Your task to perform on an android device: find snoozed emails in the gmail app Image 0: 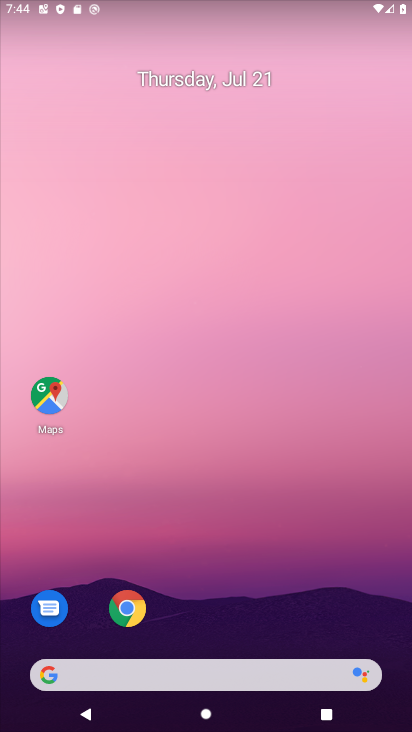
Step 0: drag from (184, 672) to (155, 228)
Your task to perform on an android device: find snoozed emails in the gmail app Image 1: 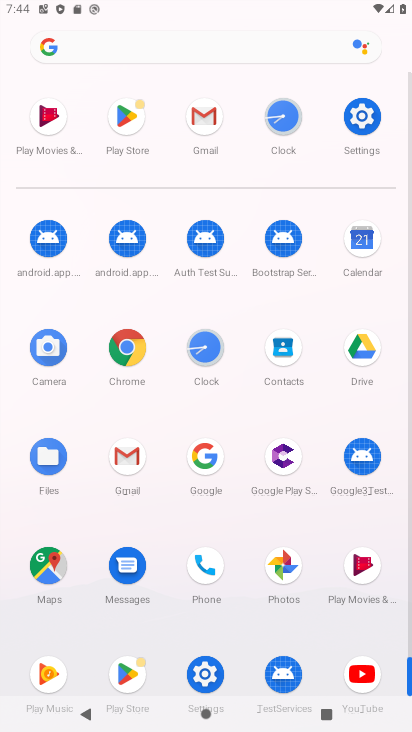
Step 1: click (203, 115)
Your task to perform on an android device: find snoozed emails in the gmail app Image 2: 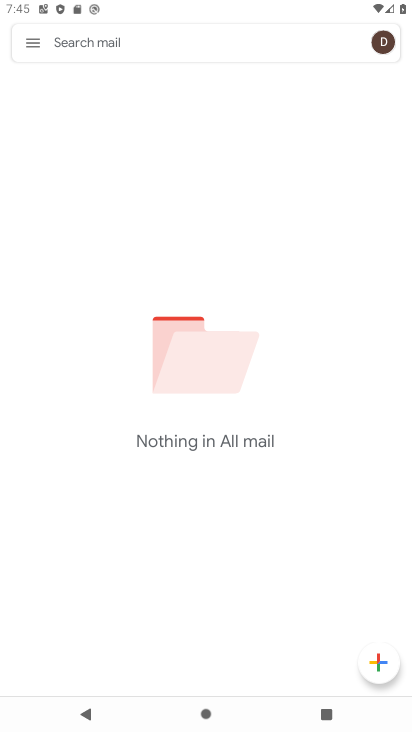
Step 2: click (32, 41)
Your task to perform on an android device: find snoozed emails in the gmail app Image 3: 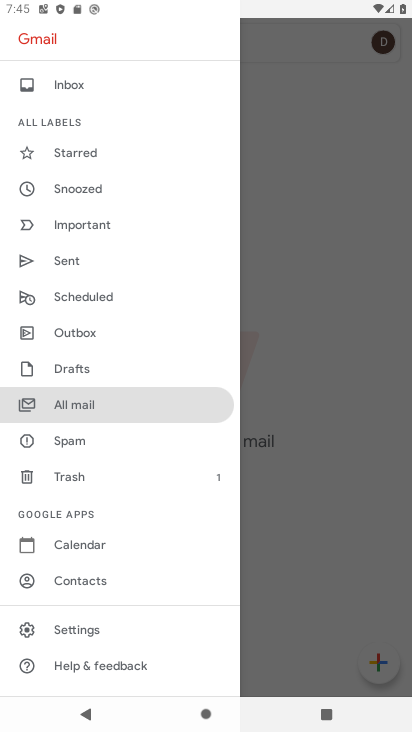
Step 3: click (69, 176)
Your task to perform on an android device: find snoozed emails in the gmail app Image 4: 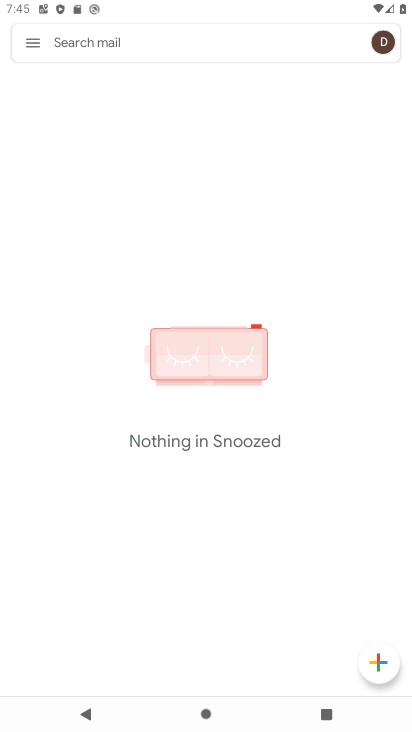
Step 4: click (33, 47)
Your task to perform on an android device: find snoozed emails in the gmail app Image 5: 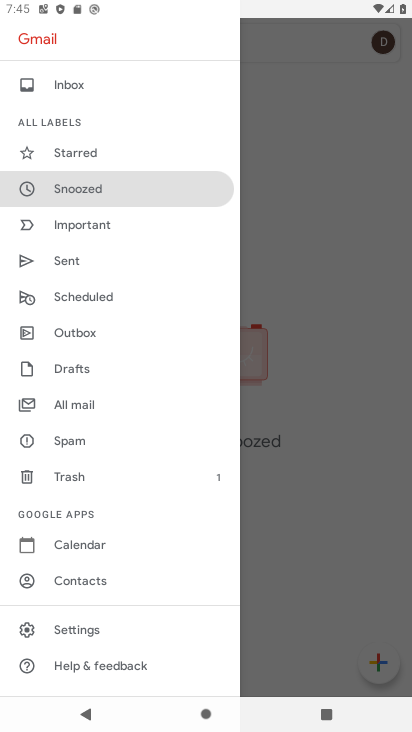
Step 5: click (73, 225)
Your task to perform on an android device: find snoozed emails in the gmail app Image 6: 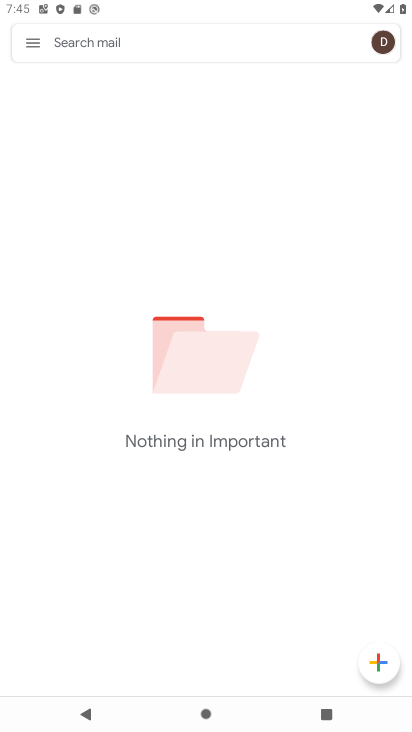
Step 6: click (33, 44)
Your task to perform on an android device: find snoozed emails in the gmail app Image 7: 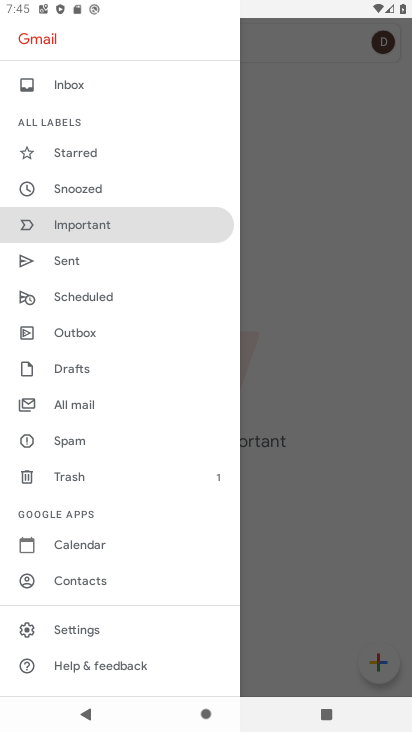
Step 7: click (71, 254)
Your task to perform on an android device: find snoozed emails in the gmail app Image 8: 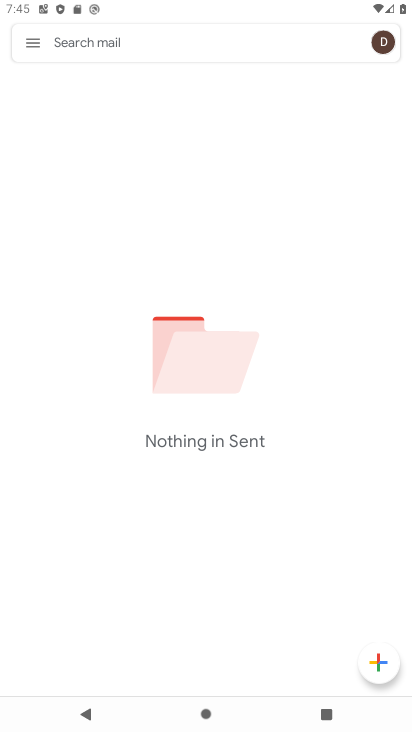
Step 8: click (32, 42)
Your task to perform on an android device: find snoozed emails in the gmail app Image 9: 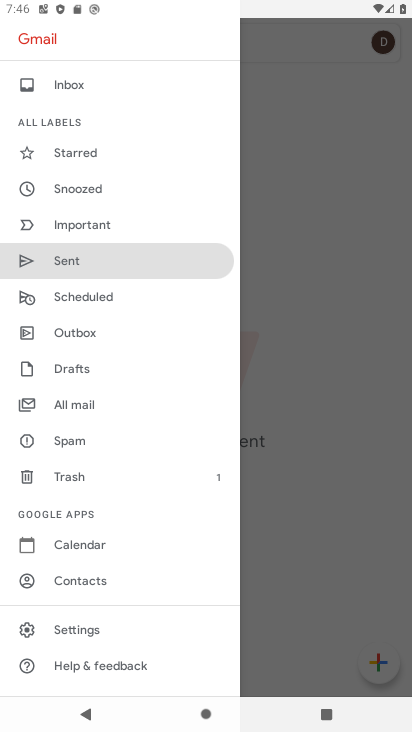
Step 9: click (86, 292)
Your task to perform on an android device: find snoozed emails in the gmail app Image 10: 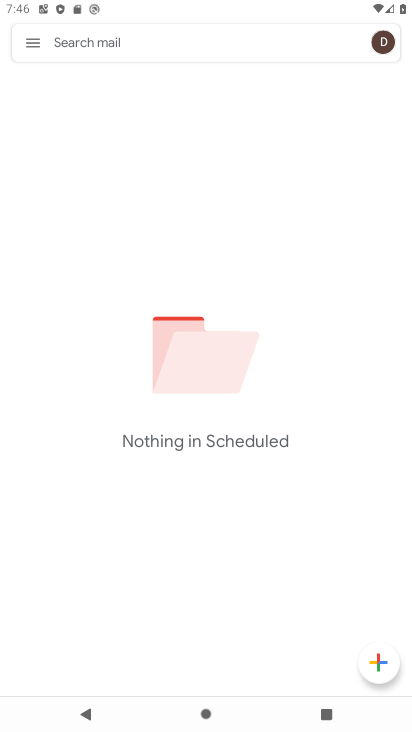
Step 10: click (37, 42)
Your task to perform on an android device: find snoozed emails in the gmail app Image 11: 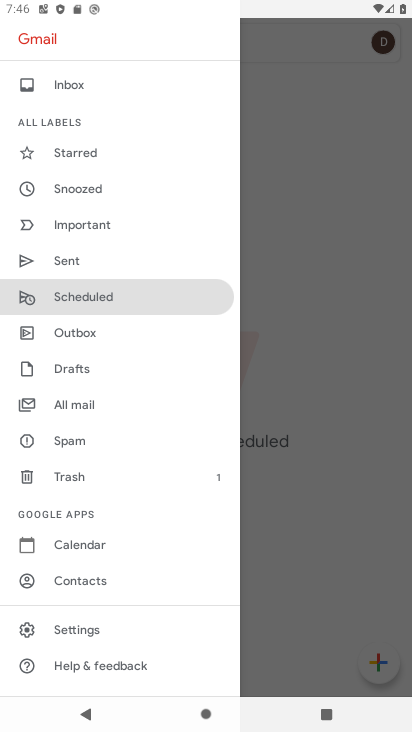
Step 11: click (96, 330)
Your task to perform on an android device: find snoozed emails in the gmail app Image 12: 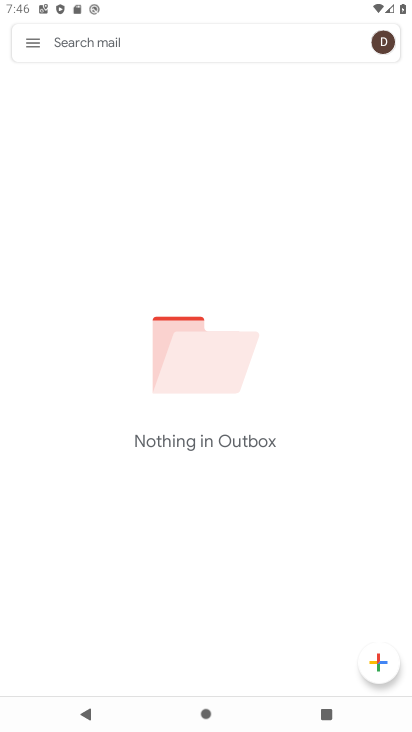
Step 12: click (32, 43)
Your task to perform on an android device: find snoozed emails in the gmail app Image 13: 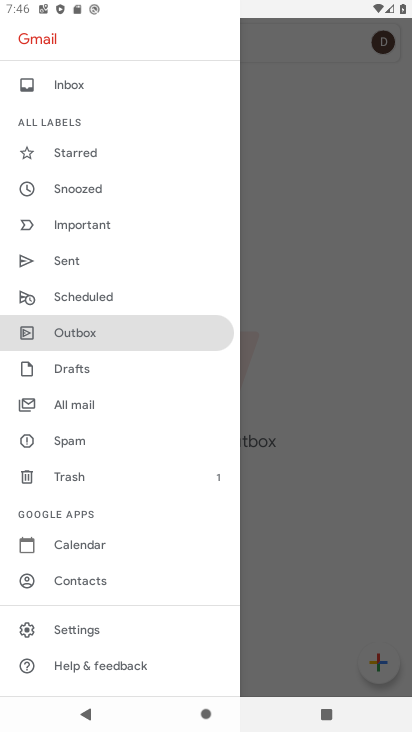
Step 13: click (77, 370)
Your task to perform on an android device: find snoozed emails in the gmail app Image 14: 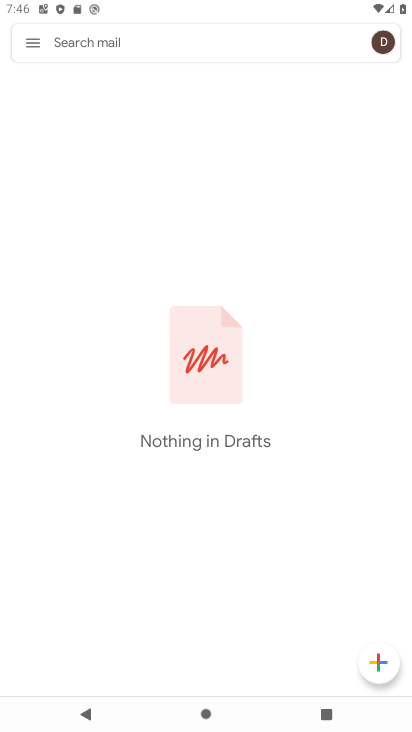
Step 14: click (34, 40)
Your task to perform on an android device: find snoozed emails in the gmail app Image 15: 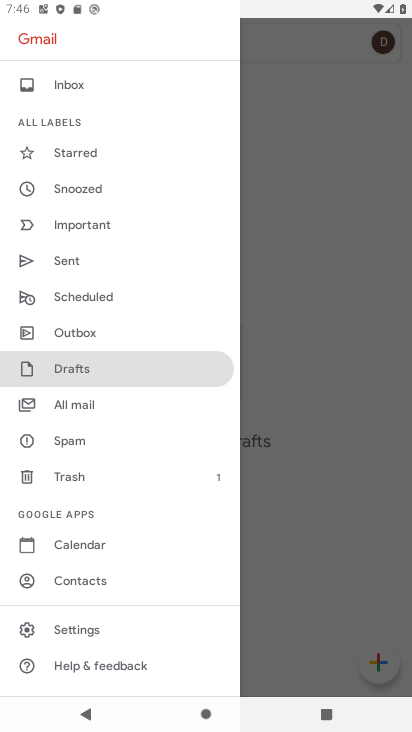
Step 15: click (85, 405)
Your task to perform on an android device: find snoozed emails in the gmail app Image 16: 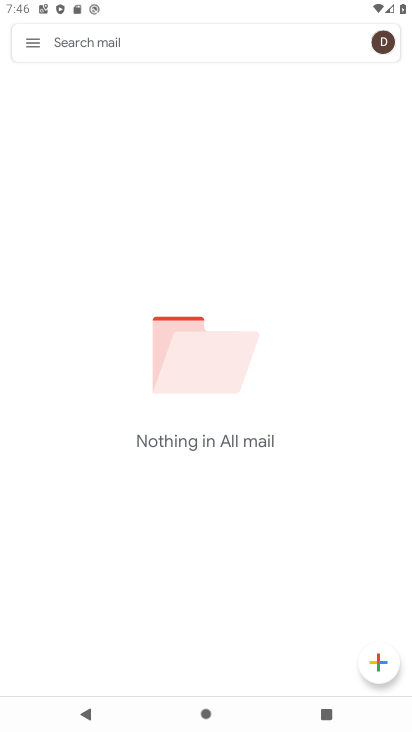
Step 16: click (31, 42)
Your task to perform on an android device: find snoozed emails in the gmail app Image 17: 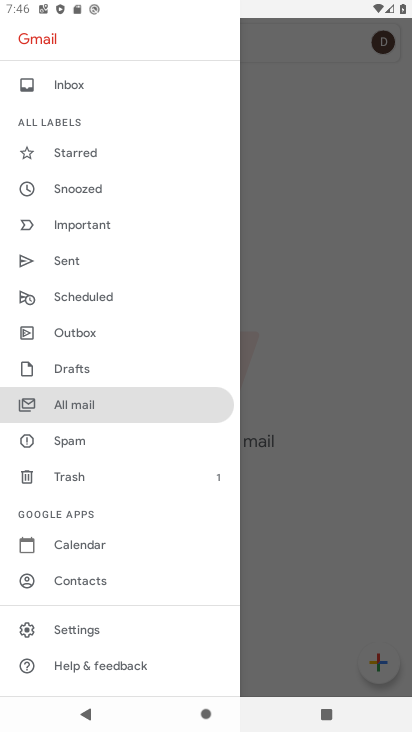
Step 17: click (81, 442)
Your task to perform on an android device: find snoozed emails in the gmail app Image 18: 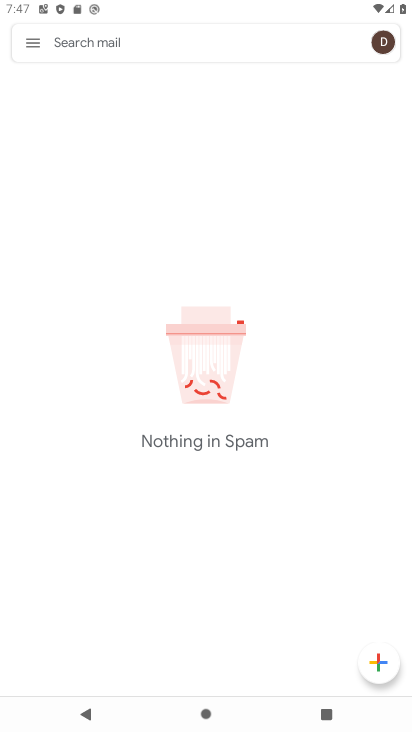
Step 18: task complete